Your task to perform on an android device: toggle priority inbox in the gmail app Image 0: 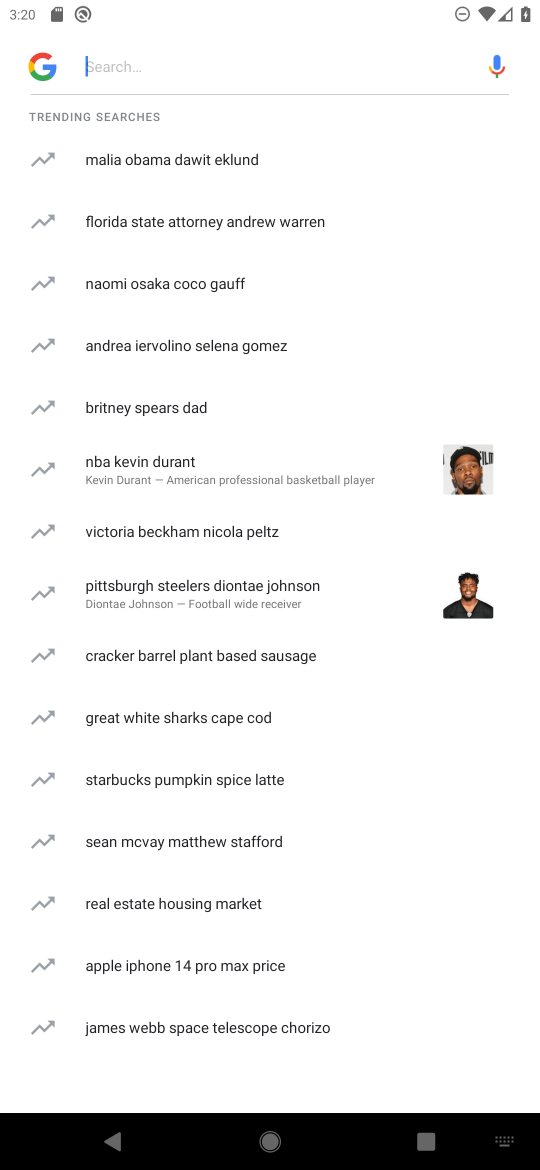
Step 0: press home button
Your task to perform on an android device: toggle priority inbox in the gmail app Image 1: 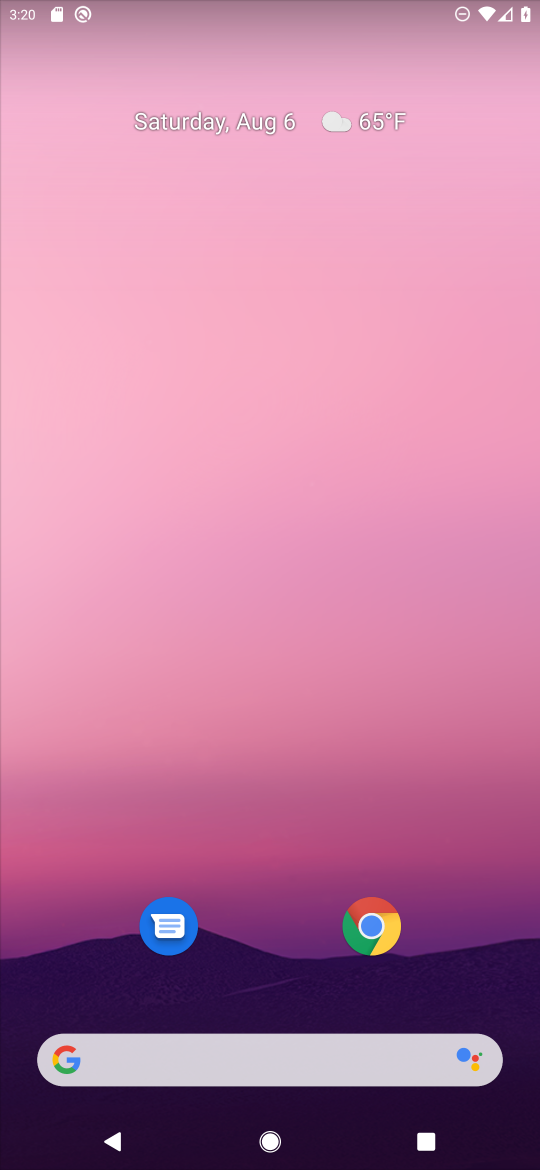
Step 1: drag from (252, 817) to (243, 331)
Your task to perform on an android device: toggle priority inbox in the gmail app Image 2: 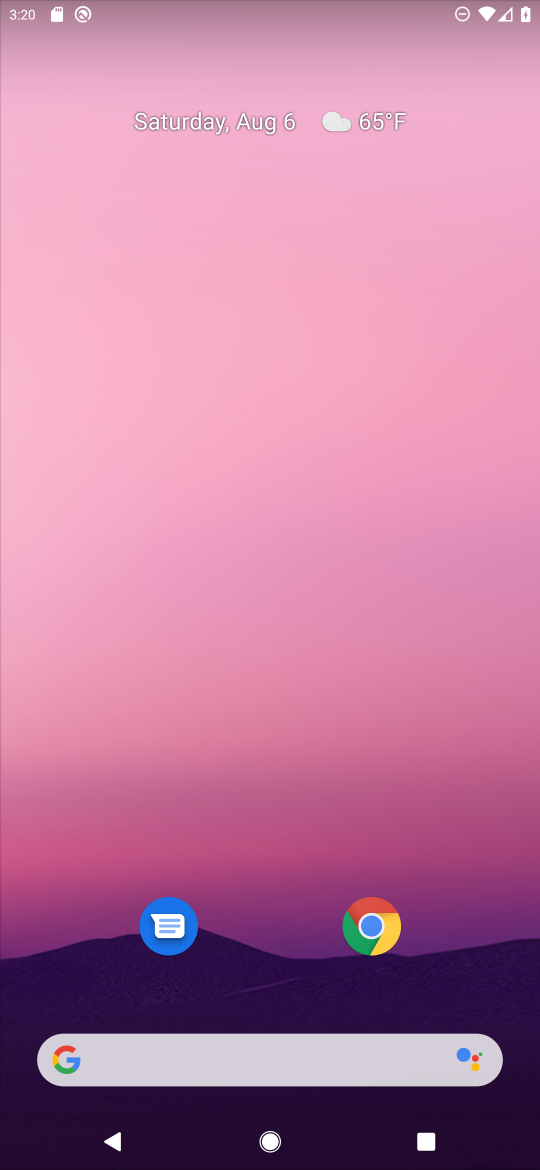
Step 2: drag from (289, 914) to (270, 345)
Your task to perform on an android device: toggle priority inbox in the gmail app Image 3: 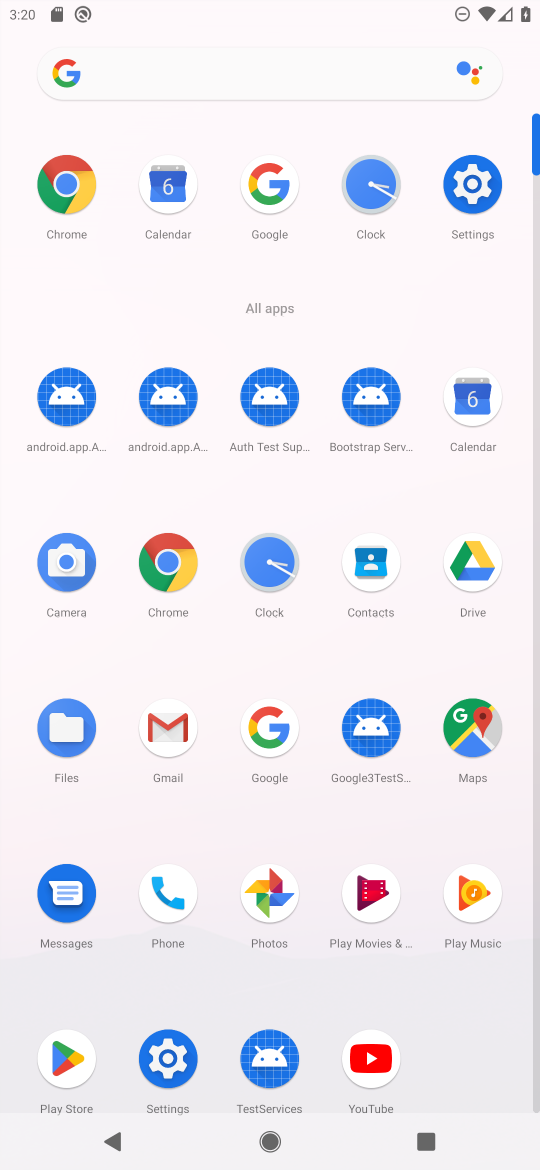
Step 3: click (153, 748)
Your task to perform on an android device: toggle priority inbox in the gmail app Image 4: 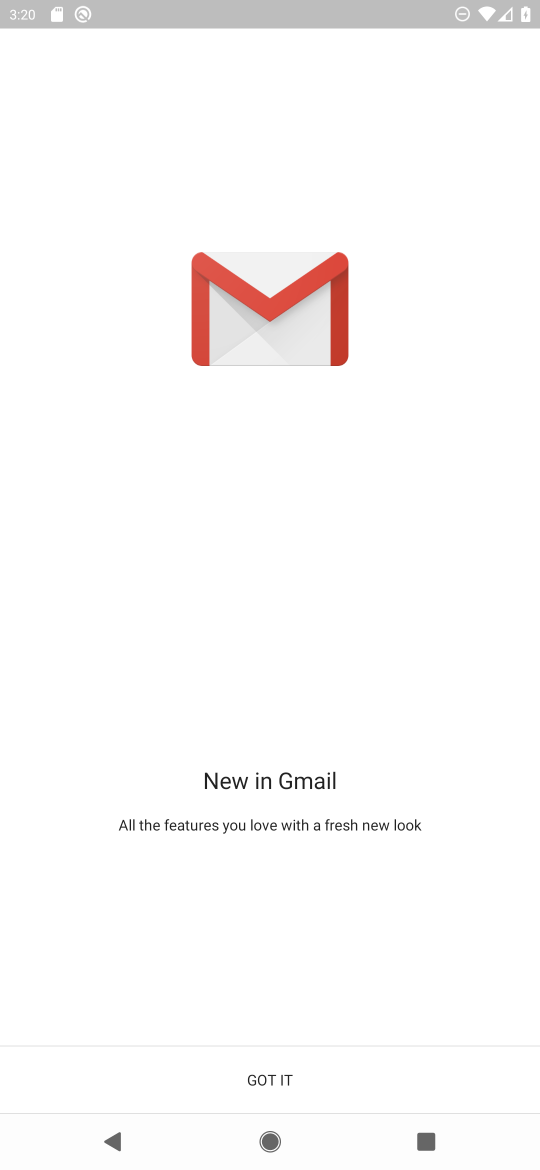
Step 4: click (304, 1079)
Your task to perform on an android device: toggle priority inbox in the gmail app Image 5: 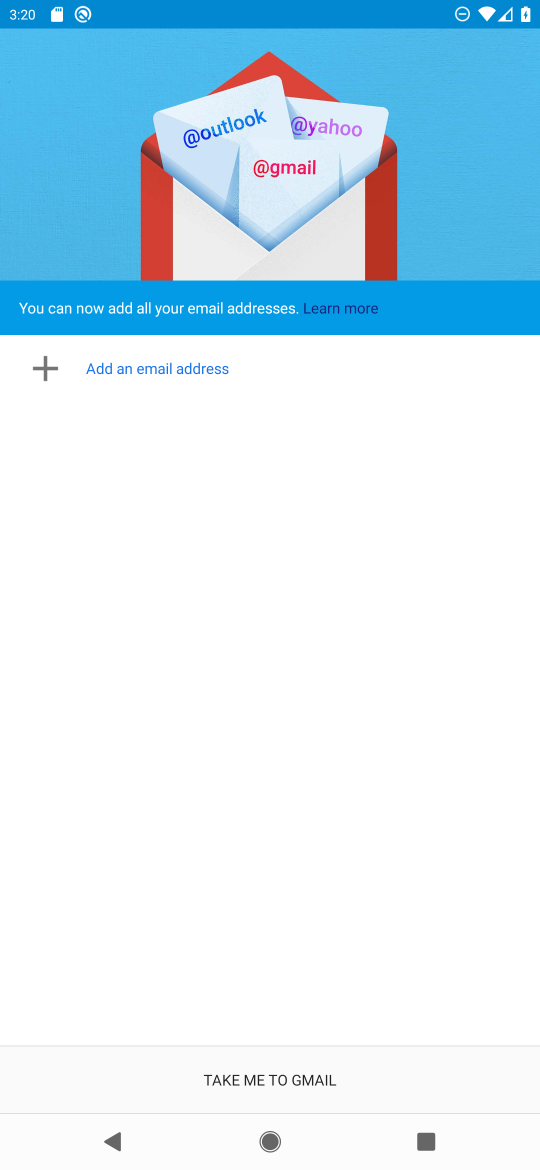
Step 5: click (304, 1079)
Your task to perform on an android device: toggle priority inbox in the gmail app Image 6: 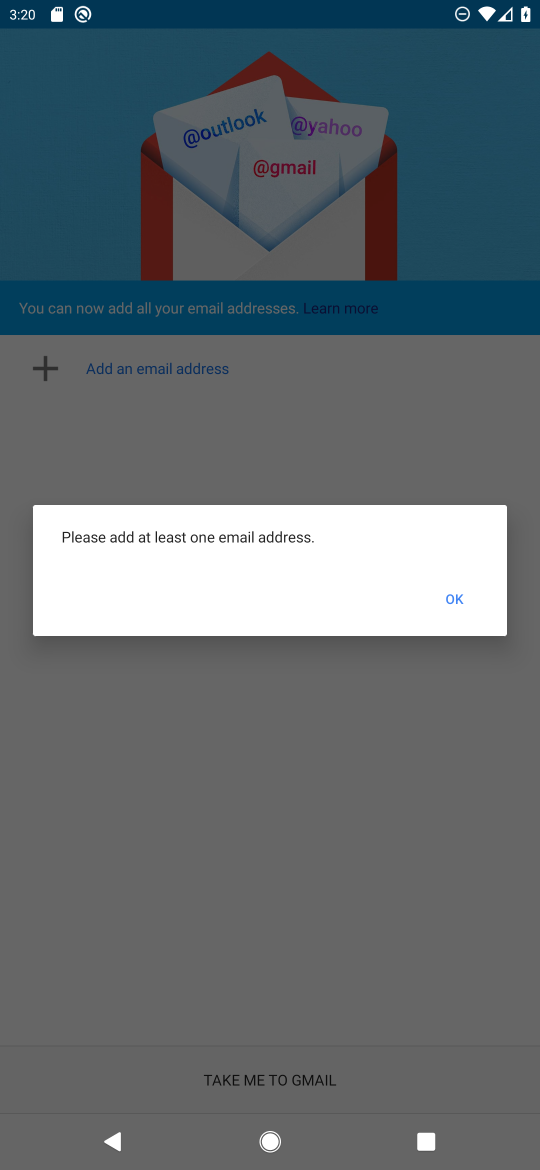
Step 6: click (444, 600)
Your task to perform on an android device: toggle priority inbox in the gmail app Image 7: 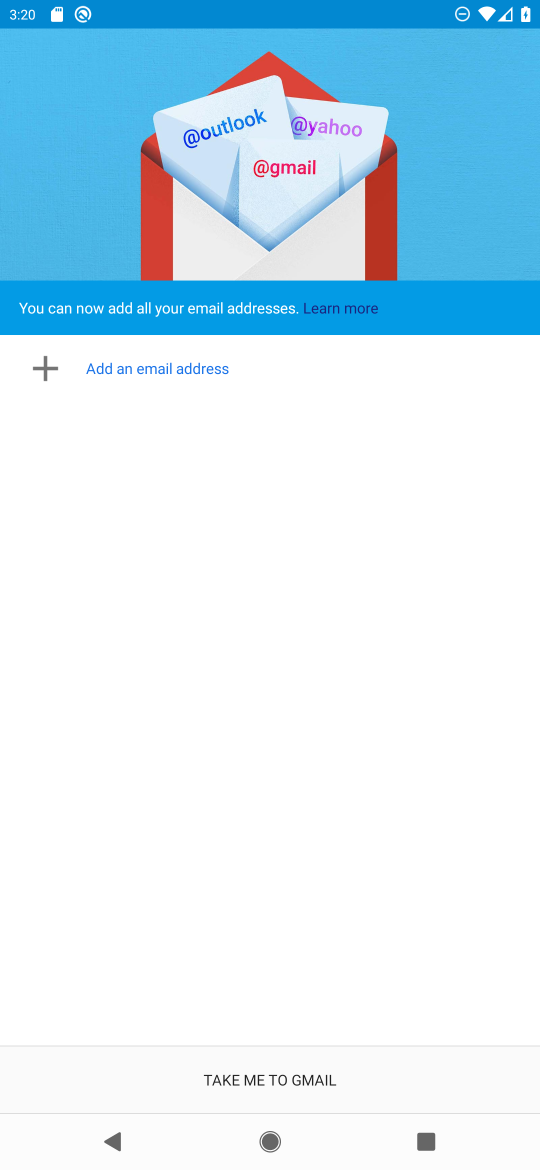
Step 7: click (287, 1077)
Your task to perform on an android device: toggle priority inbox in the gmail app Image 8: 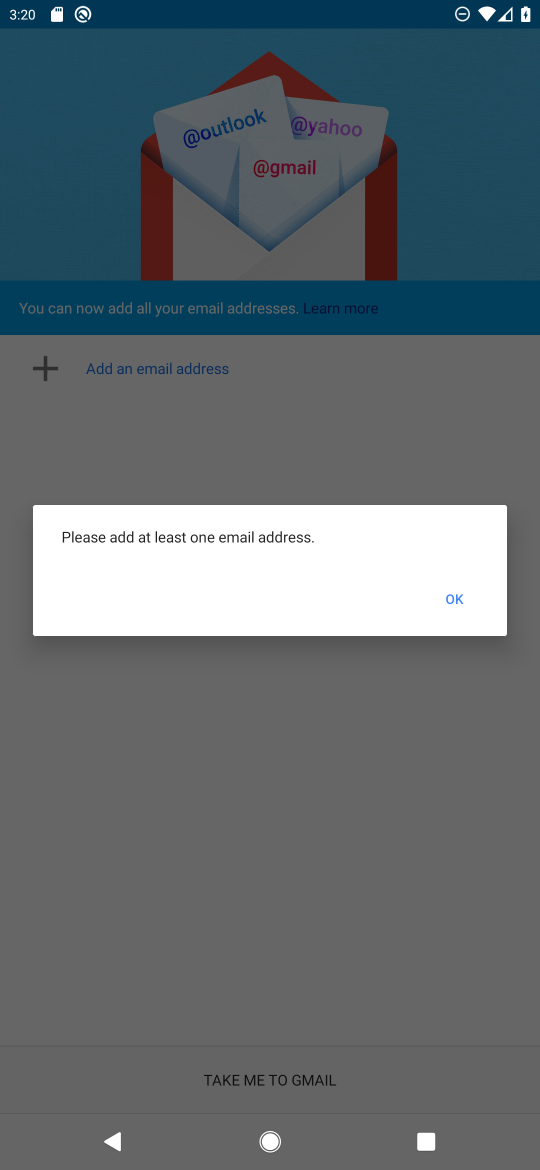
Step 8: click (449, 574)
Your task to perform on an android device: toggle priority inbox in the gmail app Image 9: 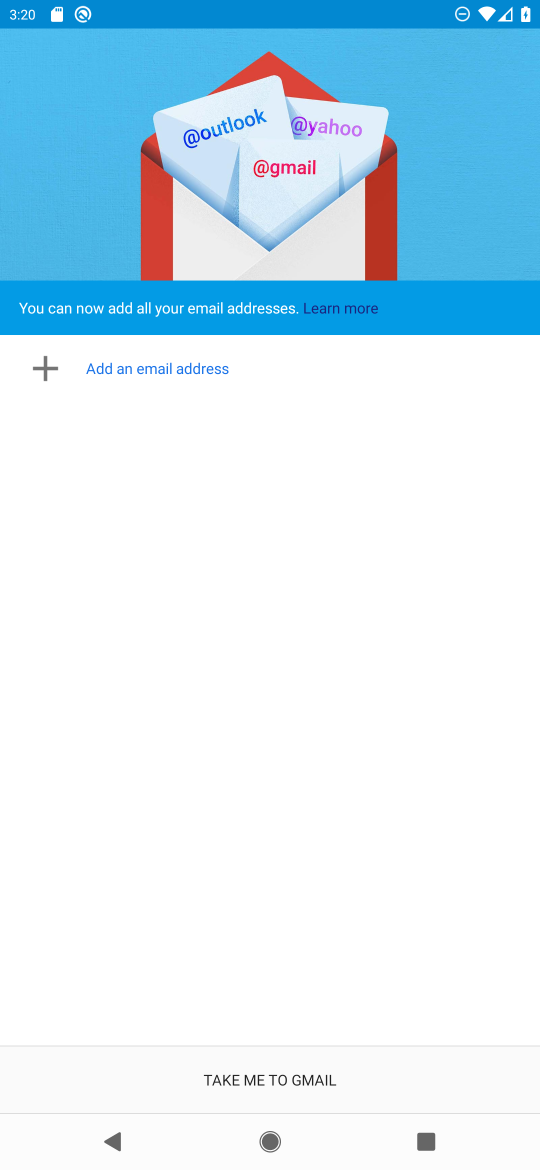
Step 9: click (283, 1077)
Your task to perform on an android device: toggle priority inbox in the gmail app Image 10: 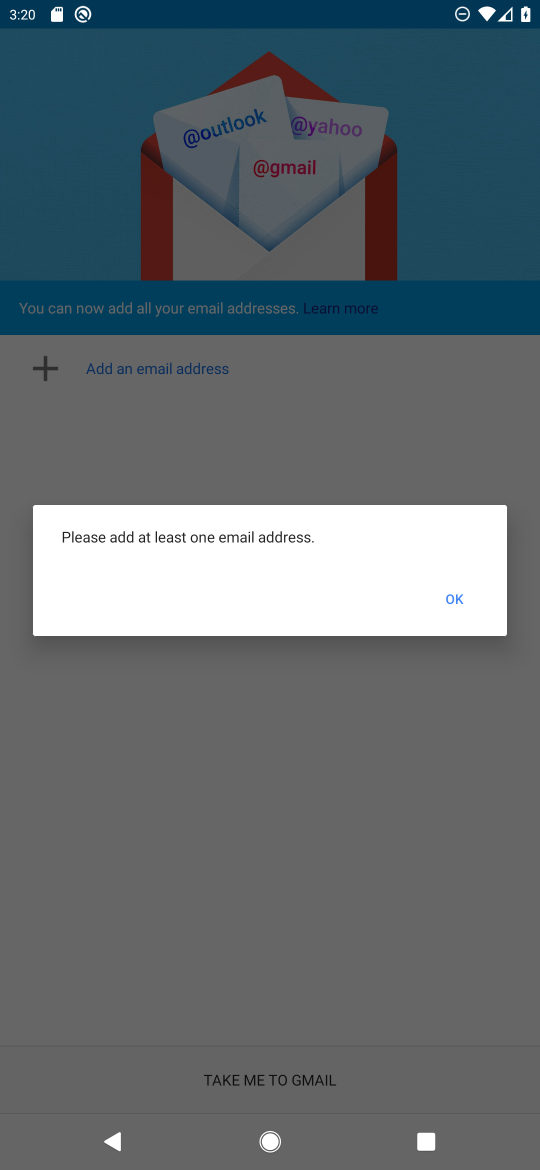
Step 10: click (283, 1077)
Your task to perform on an android device: toggle priority inbox in the gmail app Image 11: 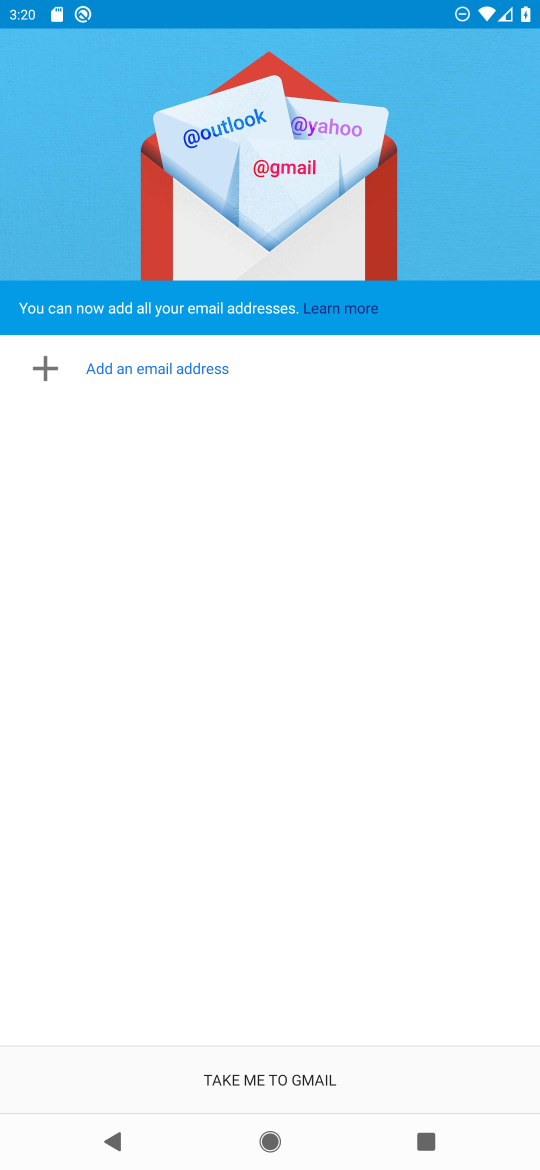
Step 11: click (446, 590)
Your task to perform on an android device: toggle priority inbox in the gmail app Image 12: 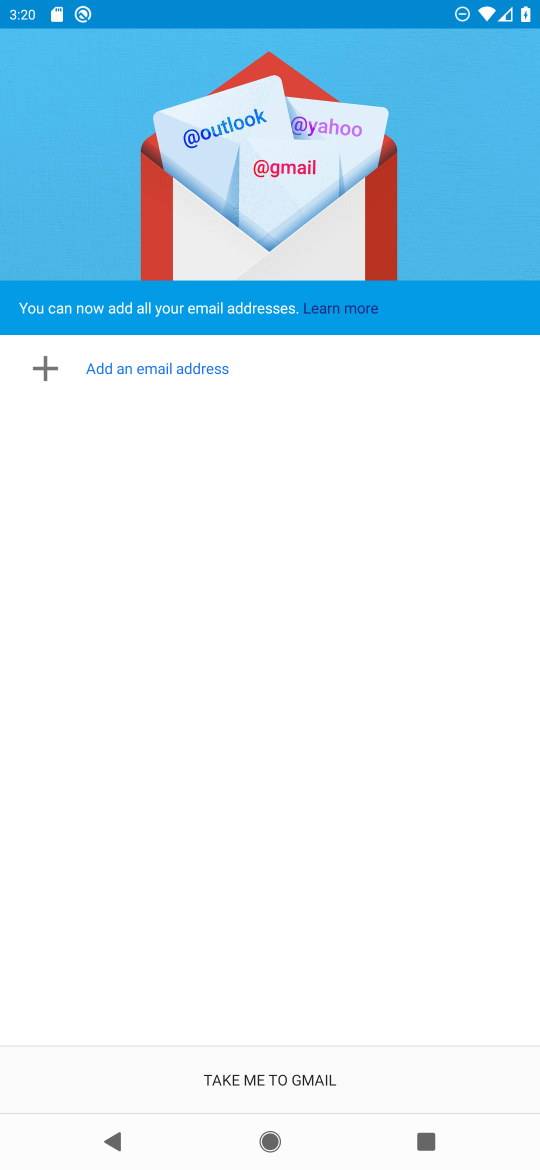
Step 12: click (381, 1080)
Your task to perform on an android device: toggle priority inbox in the gmail app Image 13: 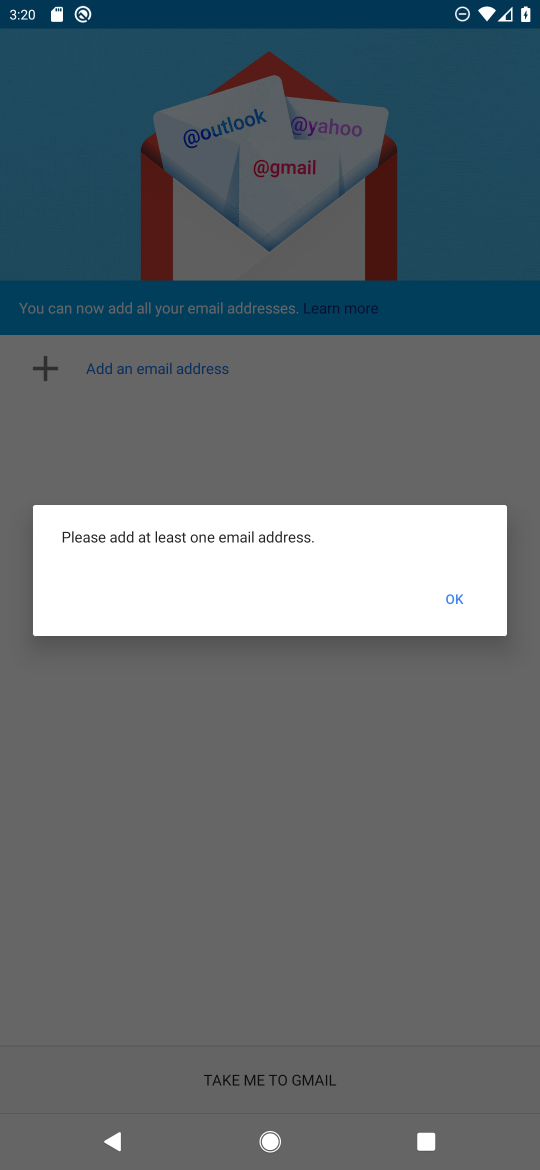
Step 13: task complete